Your task to perform on an android device: Open display settings Image 0: 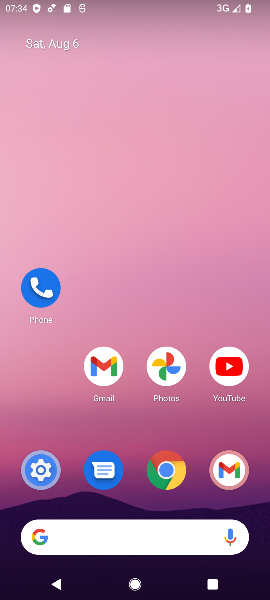
Step 0: press home button
Your task to perform on an android device: Open display settings Image 1: 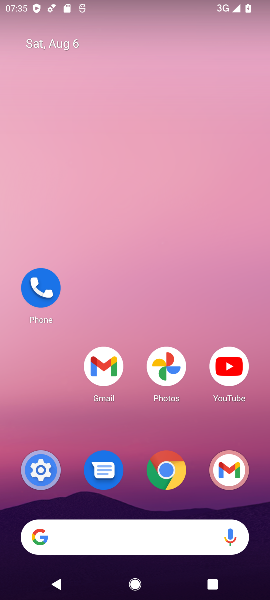
Step 1: drag from (109, 528) to (58, 326)
Your task to perform on an android device: Open display settings Image 2: 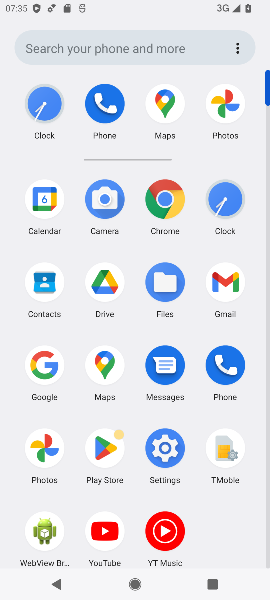
Step 2: click (167, 466)
Your task to perform on an android device: Open display settings Image 3: 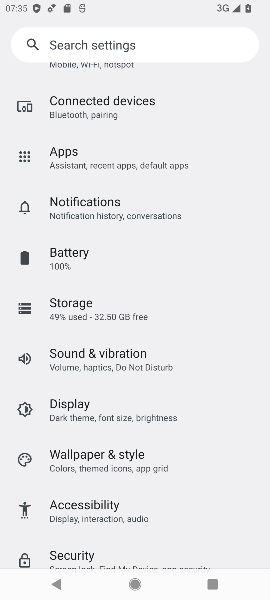
Step 3: drag from (51, 143) to (108, 597)
Your task to perform on an android device: Open display settings Image 4: 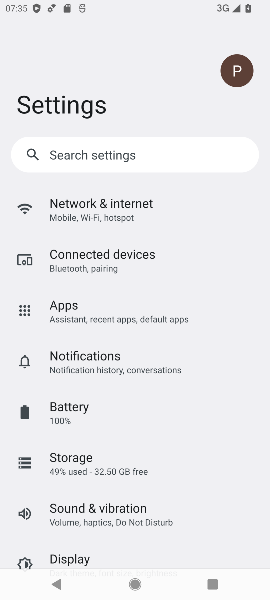
Step 4: drag from (112, 516) to (152, 156)
Your task to perform on an android device: Open display settings Image 5: 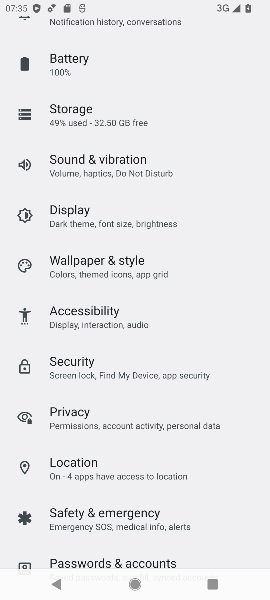
Step 5: click (74, 217)
Your task to perform on an android device: Open display settings Image 6: 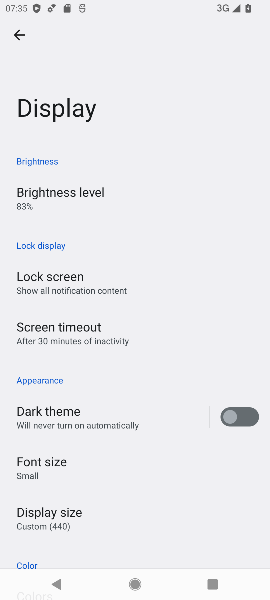
Step 6: task complete